Your task to perform on an android device: star an email in the gmail app Image 0: 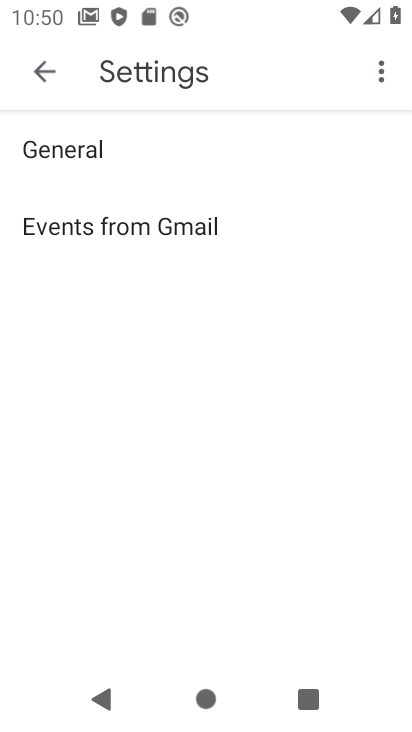
Step 0: press home button
Your task to perform on an android device: star an email in the gmail app Image 1: 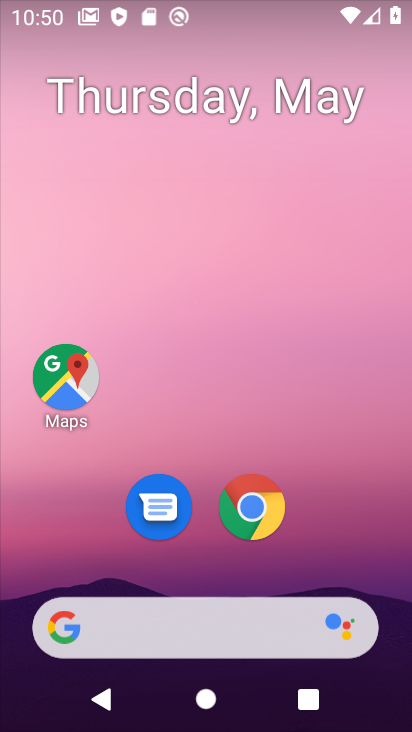
Step 1: drag from (203, 559) to (206, 170)
Your task to perform on an android device: star an email in the gmail app Image 2: 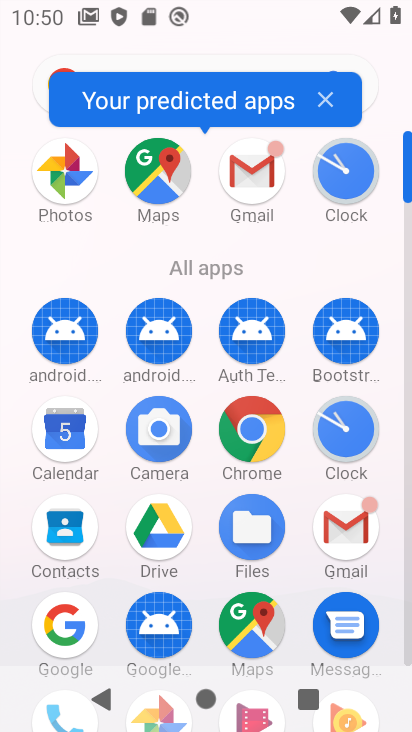
Step 2: click (250, 176)
Your task to perform on an android device: star an email in the gmail app Image 3: 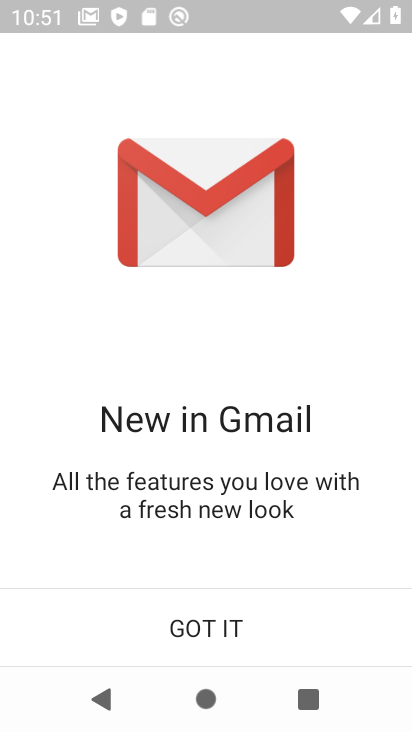
Step 3: click (207, 640)
Your task to perform on an android device: star an email in the gmail app Image 4: 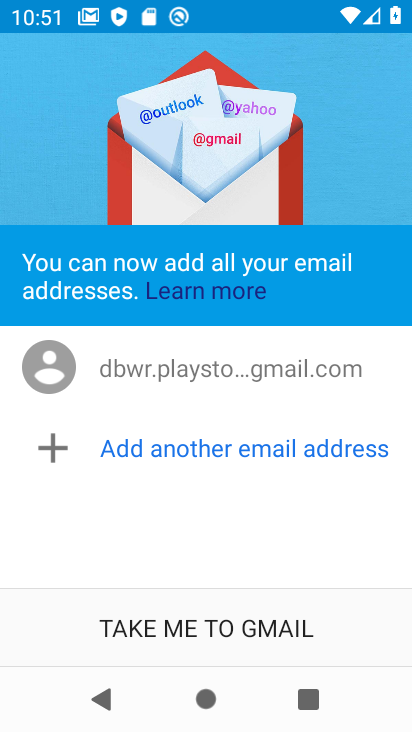
Step 4: click (207, 640)
Your task to perform on an android device: star an email in the gmail app Image 5: 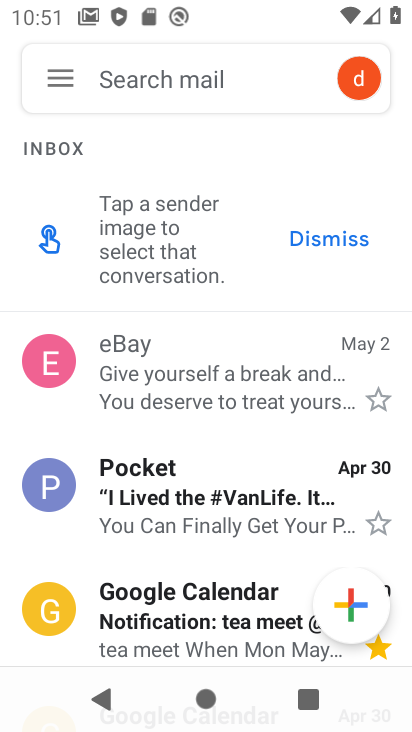
Step 5: click (377, 406)
Your task to perform on an android device: star an email in the gmail app Image 6: 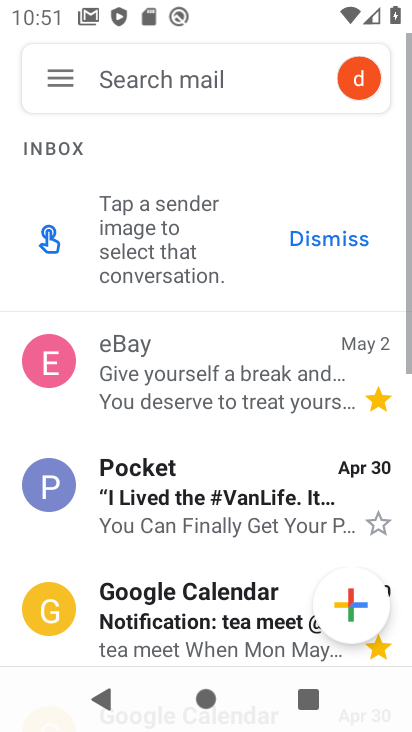
Step 6: task complete